Your task to perform on an android device: Search for Mexican restaurants on Maps Image 0: 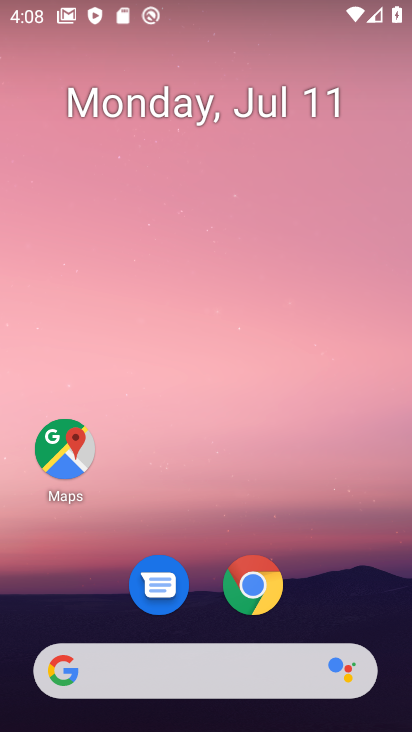
Step 0: drag from (336, 559) to (304, 39)
Your task to perform on an android device: Search for Mexican restaurants on Maps Image 1: 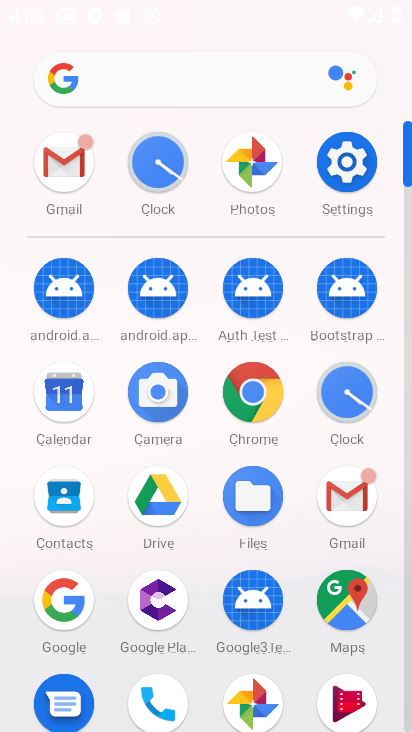
Step 1: click (354, 601)
Your task to perform on an android device: Search for Mexican restaurants on Maps Image 2: 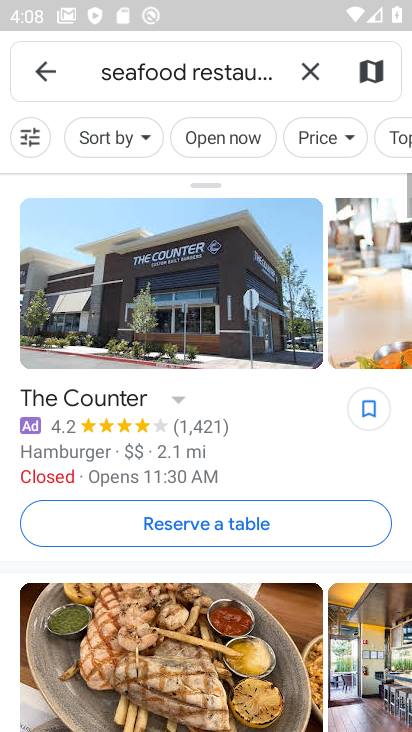
Step 2: click (307, 63)
Your task to perform on an android device: Search for Mexican restaurants on Maps Image 3: 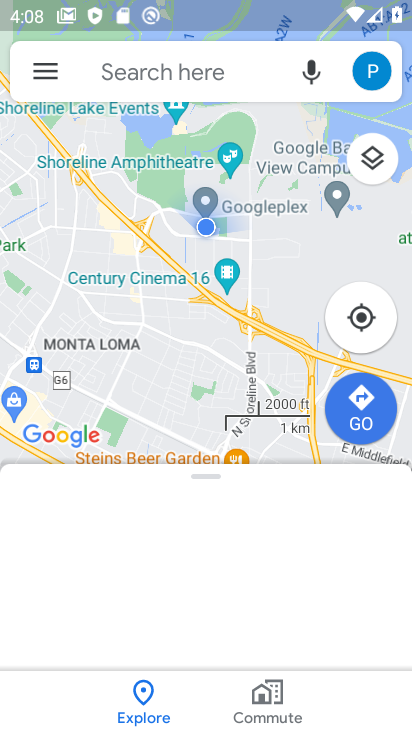
Step 3: click (200, 59)
Your task to perform on an android device: Search for Mexican restaurants on Maps Image 4: 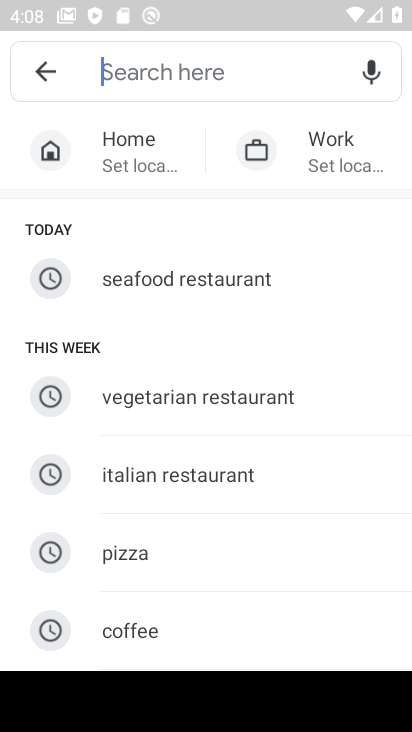
Step 4: drag from (194, 533) to (199, 181)
Your task to perform on an android device: Search for Mexican restaurants on Maps Image 5: 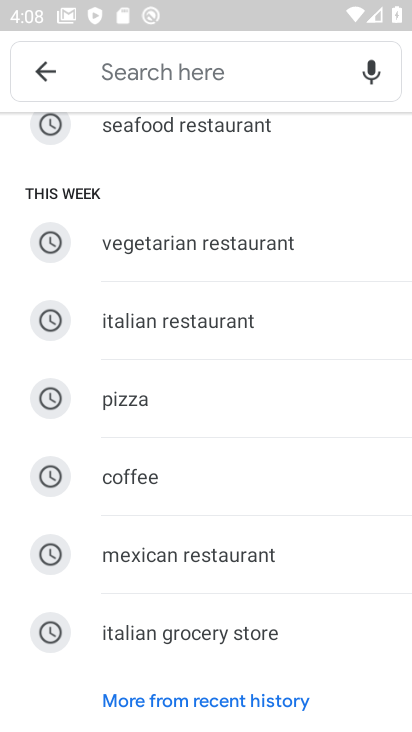
Step 5: click (221, 556)
Your task to perform on an android device: Search for Mexican restaurants on Maps Image 6: 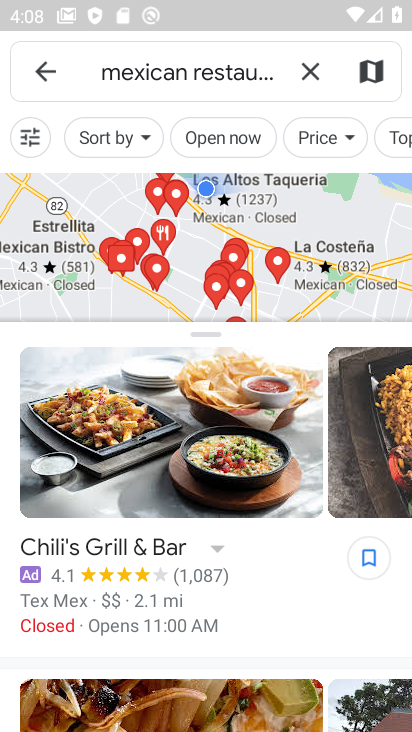
Step 6: task complete